Your task to perform on an android device: all mails in gmail Image 0: 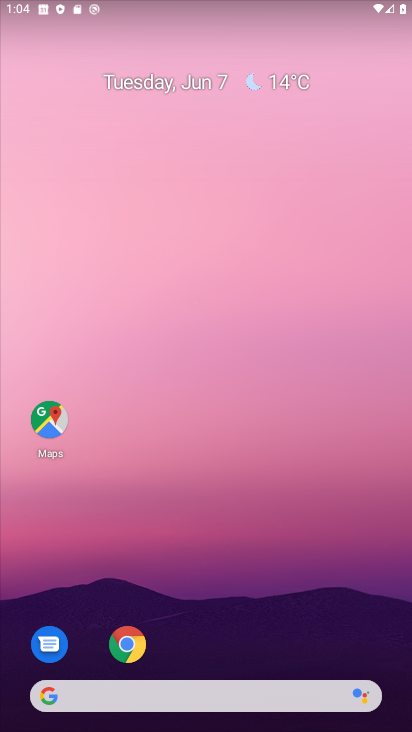
Step 0: drag from (150, 728) to (173, 70)
Your task to perform on an android device: all mails in gmail Image 1: 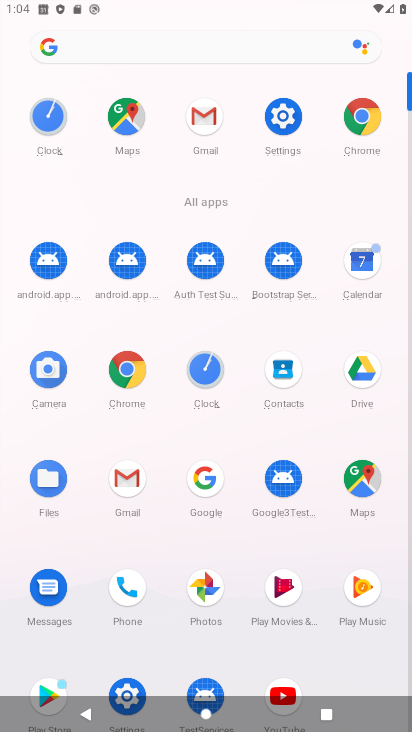
Step 1: click (211, 124)
Your task to perform on an android device: all mails in gmail Image 2: 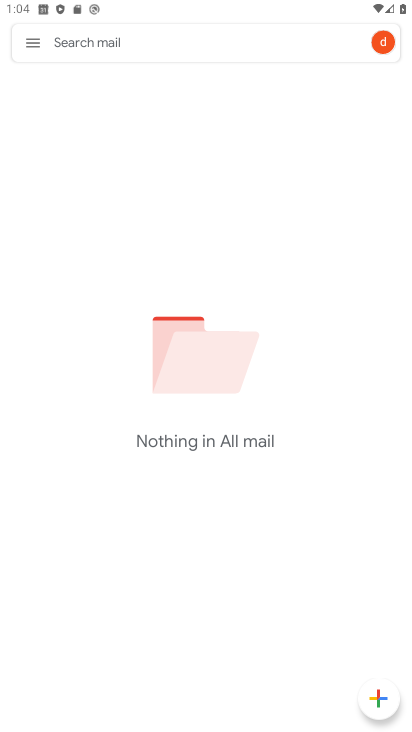
Step 2: click (29, 48)
Your task to perform on an android device: all mails in gmail Image 3: 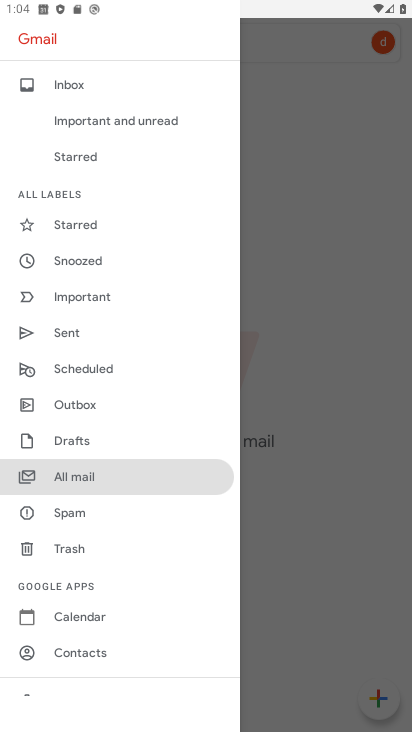
Step 3: click (75, 481)
Your task to perform on an android device: all mails in gmail Image 4: 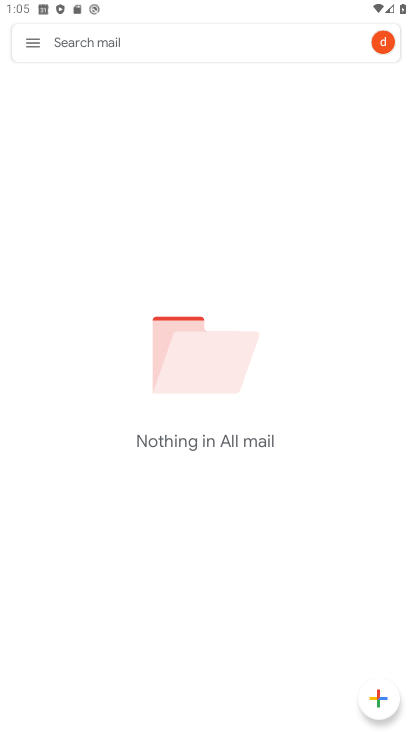
Step 4: task complete